Your task to perform on an android device: Open the calendar app, open the side menu, and click the "Day" option Image 0: 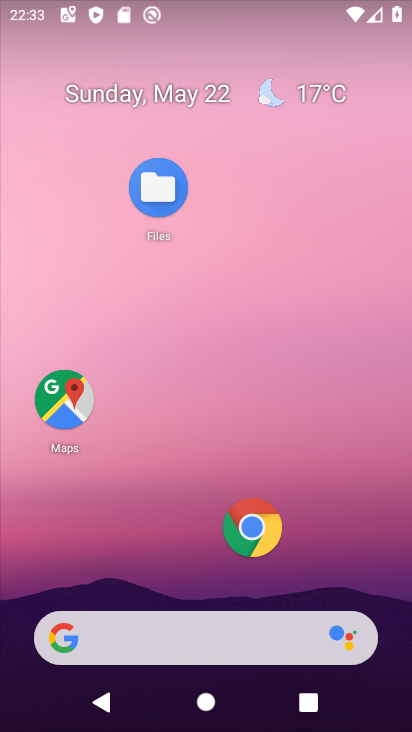
Step 0: drag from (179, 528) to (134, 36)
Your task to perform on an android device: Open the calendar app, open the side menu, and click the "Day" option Image 1: 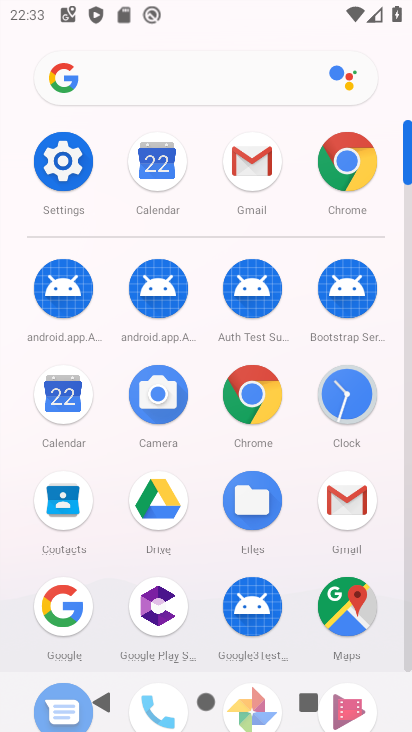
Step 1: click (75, 393)
Your task to perform on an android device: Open the calendar app, open the side menu, and click the "Day" option Image 2: 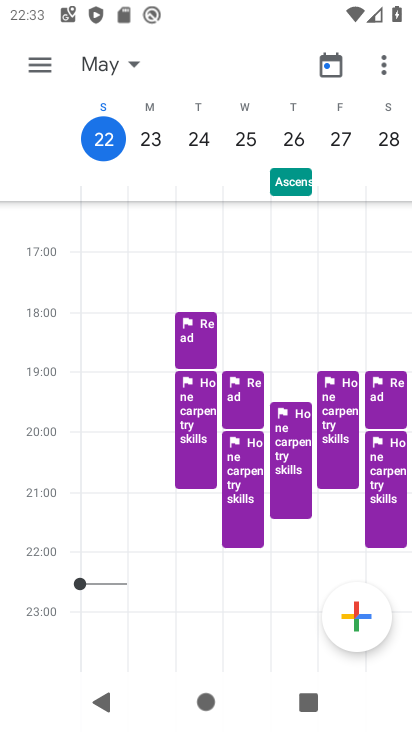
Step 2: click (41, 58)
Your task to perform on an android device: Open the calendar app, open the side menu, and click the "Day" option Image 3: 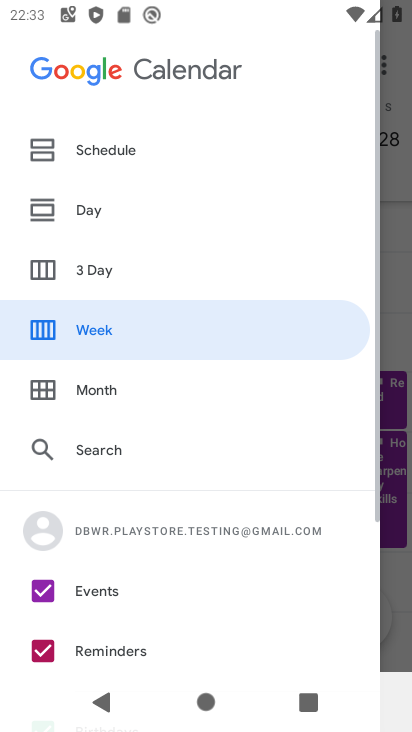
Step 3: click (83, 202)
Your task to perform on an android device: Open the calendar app, open the side menu, and click the "Day" option Image 4: 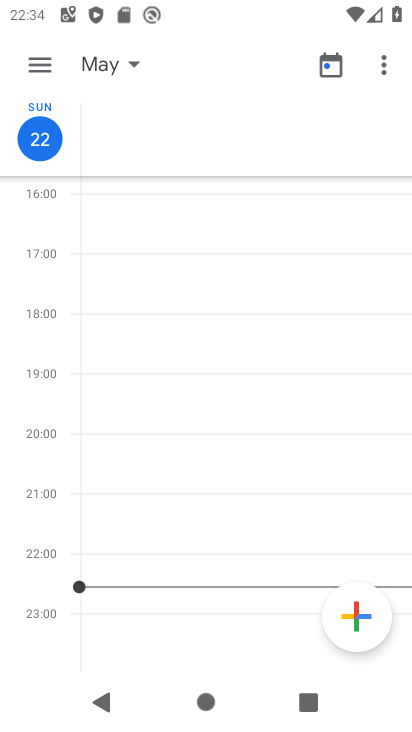
Step 4: task complete